Your task to perform on an android device: star an email in the gmail app Image 0: 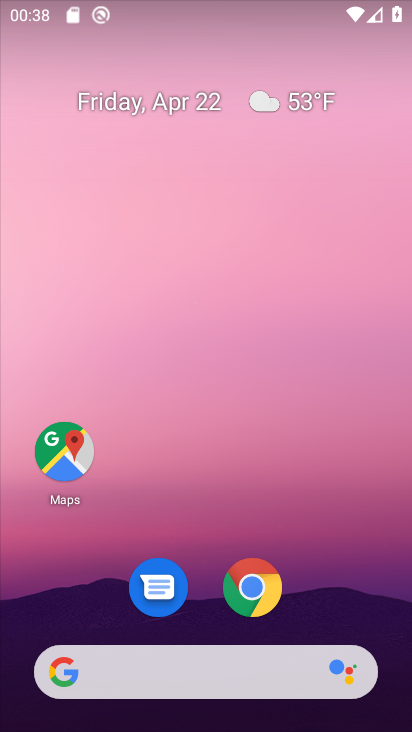
Step 0: drag from (323, 603) to (328, 240)
Your task to perform on an android device: star an email in the gmail app Image 1: 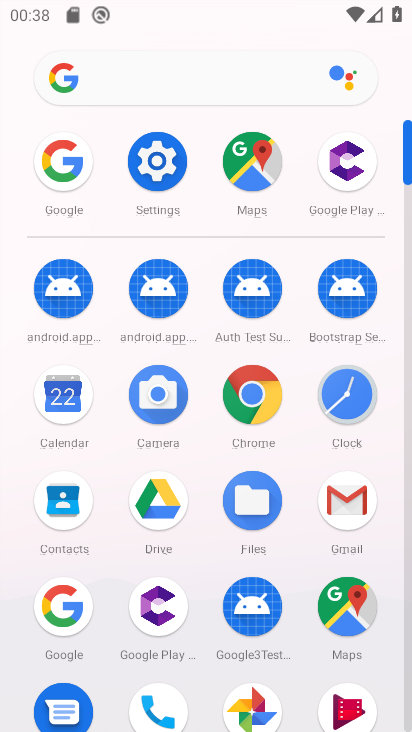
Step 1: click (338, 506)
Your task to perform on an android device: star an email in the gmail app Image 2: 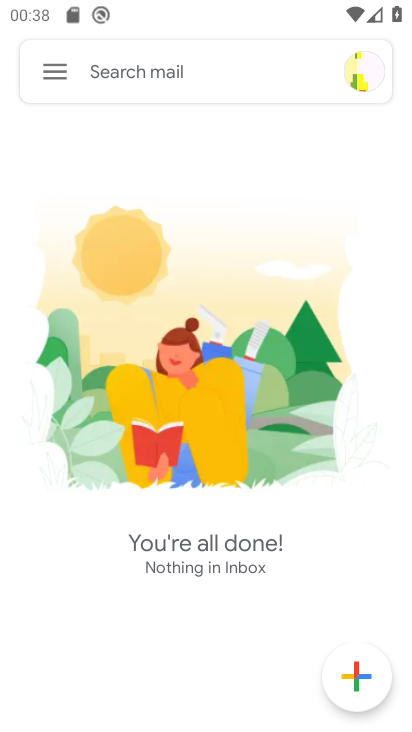
Step 2: task complete